Your task to perform on an android device: Open Google Maps Image 0: 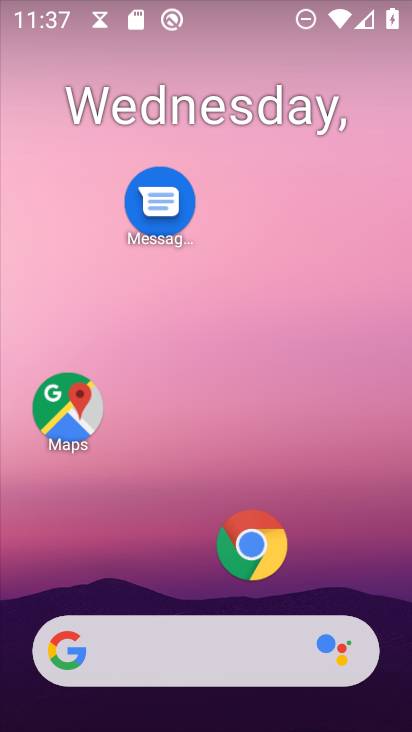
Step 0: click (92, 404)
Your task to perform on an android device: Open Google Maps Image 1: 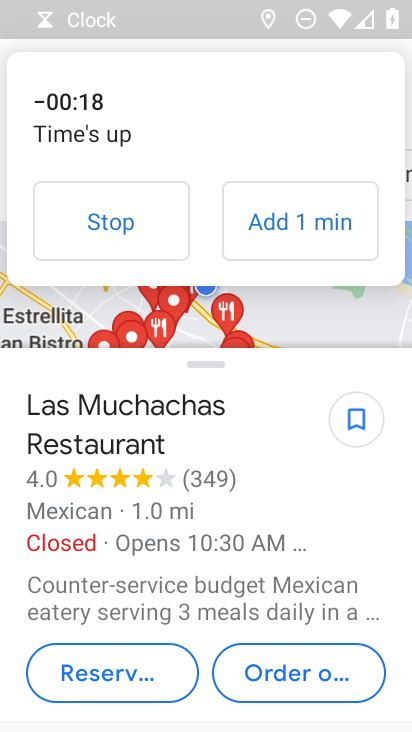
Step 1: click (87, 230)
Your task to perform on an android device: Open Google Maps Image 2: 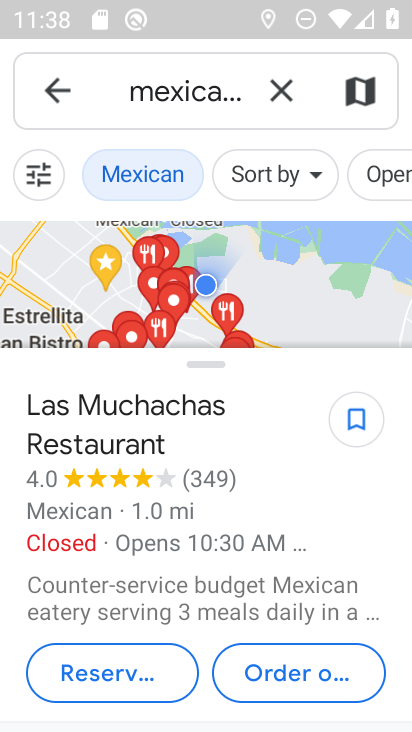
Step 2: task complete